Your task to perform on an android device: toggle pop-ups in chrome Image 0: 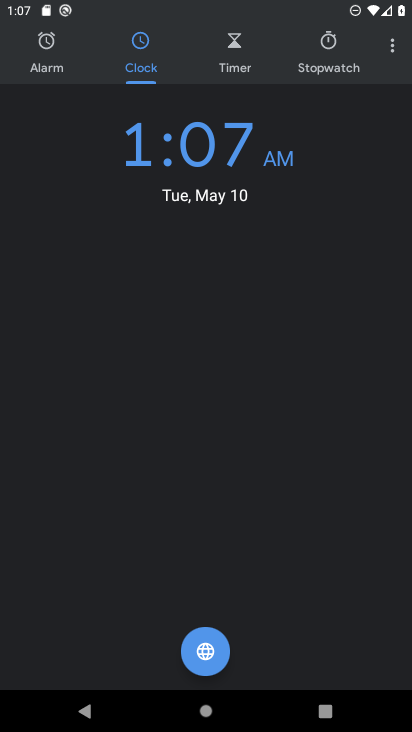
Step 0: press home button
Your task to perform on an android device: toggle pop-ups in chrome Image 1: 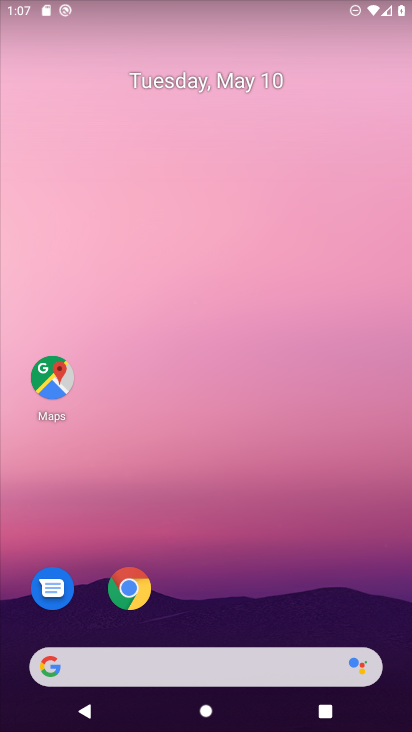
Step 1: drag from (258, 698) to (165, 241)
Your task to perform on an android device: toggle pop-ups in chrome Image 2: 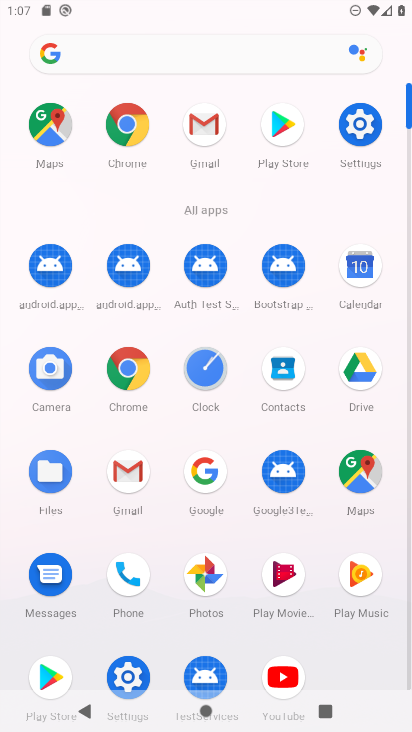
Step 2: click (123, 136)
Your task to perform on an android device: toggle pop-ups in chrome Image 3: 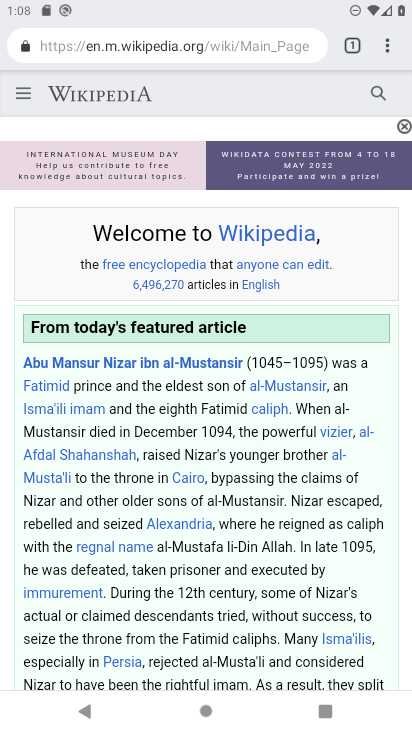
Step 3: click (379, 55)
Your task to perform on an android device: toggle pop-ups in chrome Image 4: 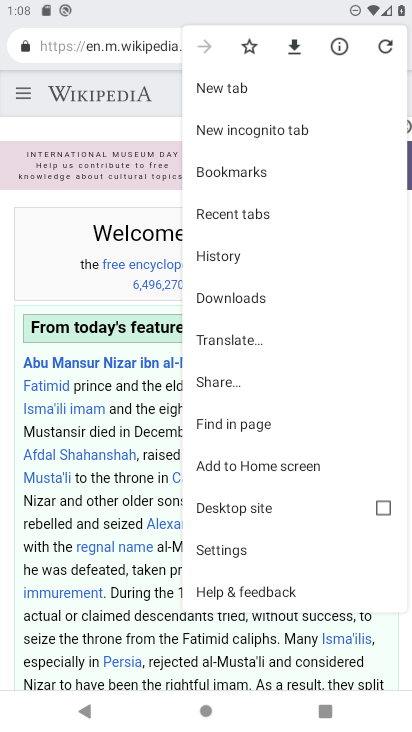
Step 4: click (231, 544)
Your task to perform on an android device: toggle pop-ups in chrome Image 5: 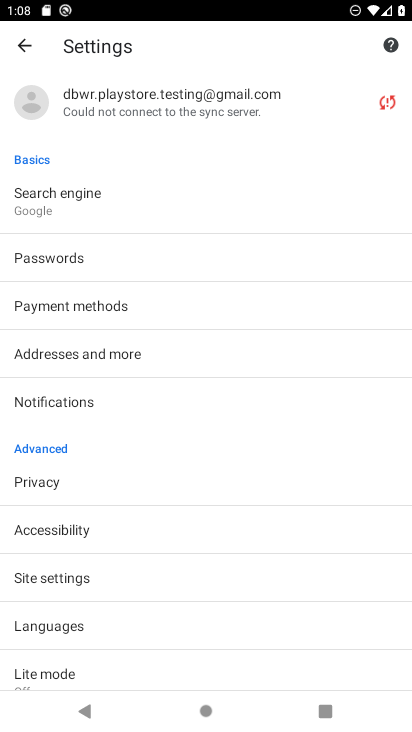
Step 5: drag from (210, 580) to (142, 332)
Your task to perform on an android device: toggle pop-ups in chrome Image 6: 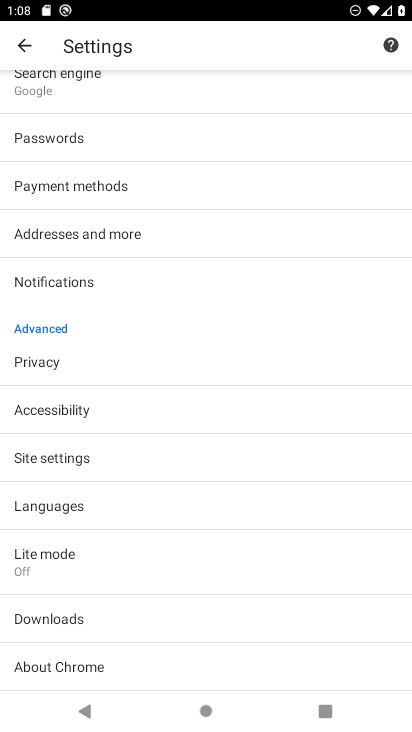
Step 6: click (53, 454)
Your task to perform on an android device: toggle pop-ups in chrome Image 7: 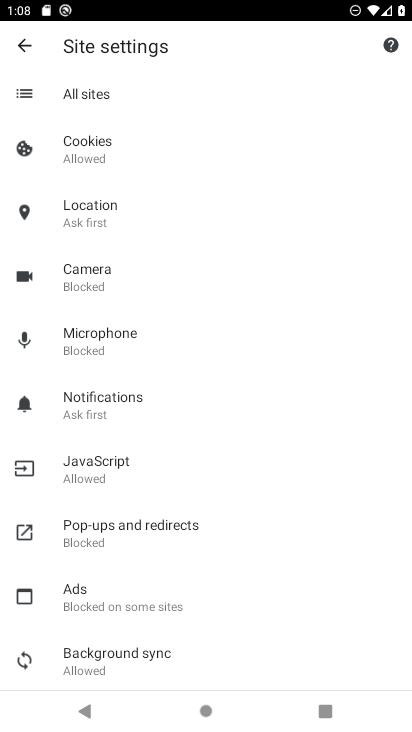
Step 7: drag from (189, 624) to (200, 548)
Your task to perform on an android device: toggle pop-ups in chrome Image 8: 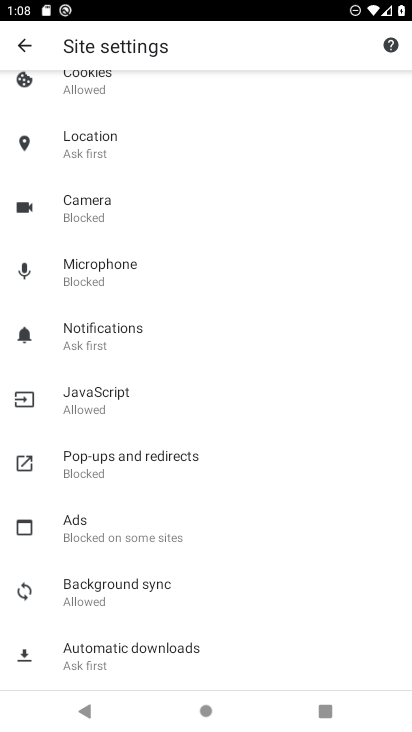
Step 8: click (109, 458)
Your task to perform on an android device: toggle pop-ups in chrome Image 9: 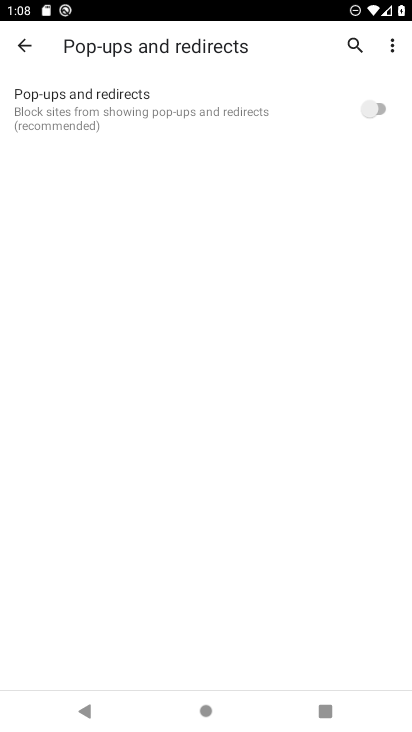
Step 9: task complete